Your task to perform on an android device: Open my contact list Image 0: 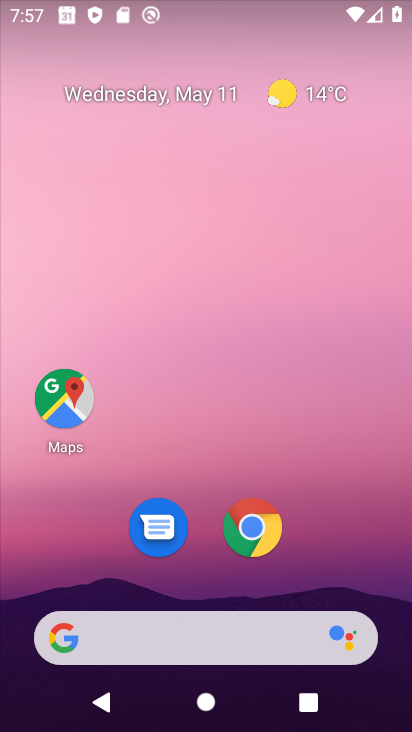
Step 0: drag from (220, 578) to (208, 0)
Your task to perform on an android device: Open my contact list Image 1: 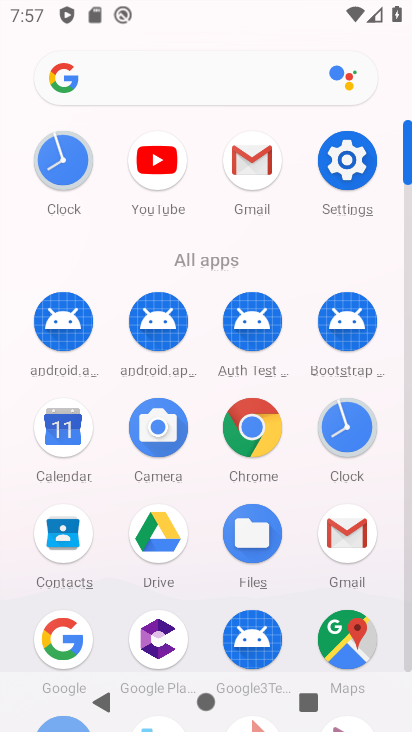
Step 1: click (60, 541)
Your task to perform on an android device: Open my contact list Image 2: 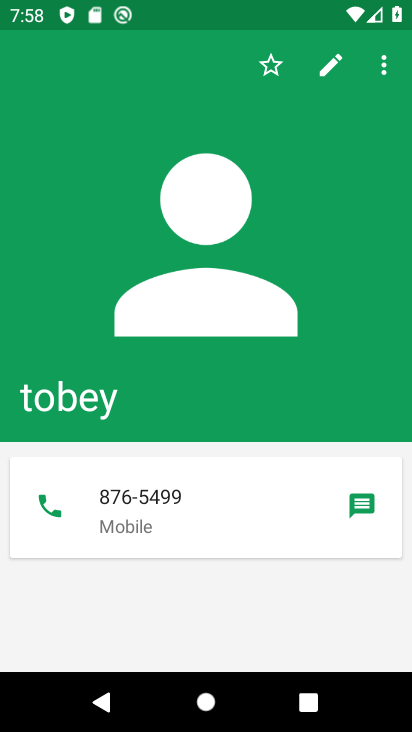
Step 2: task complete